Your task to perform on an android device: Open Chrome and go to settings Image 0: 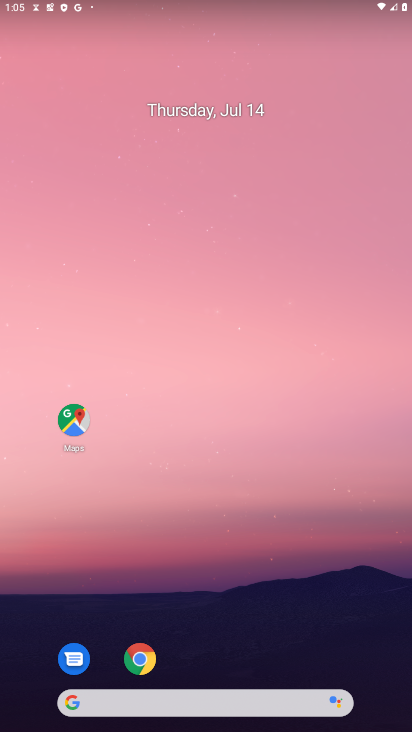
Step 0: click (146, 658)
Your task to perform on an android device: Open Chrome and go to settings Image 1: 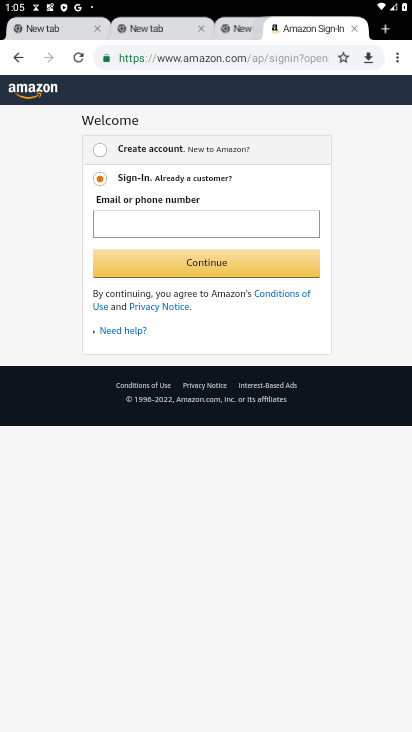
Step 1: click (394, 65)
Your task to perform on an android device: Open Chrome and go to settings Image 2: 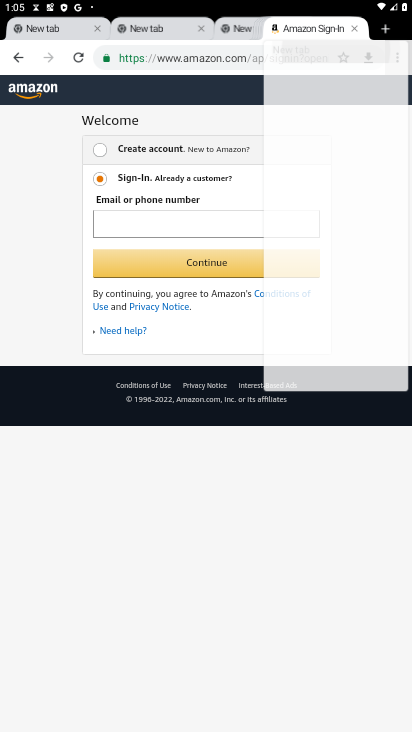
Step 2: click (398, 60)
Your task to perform on an android device: Open Chrome and go to settings Image 3: 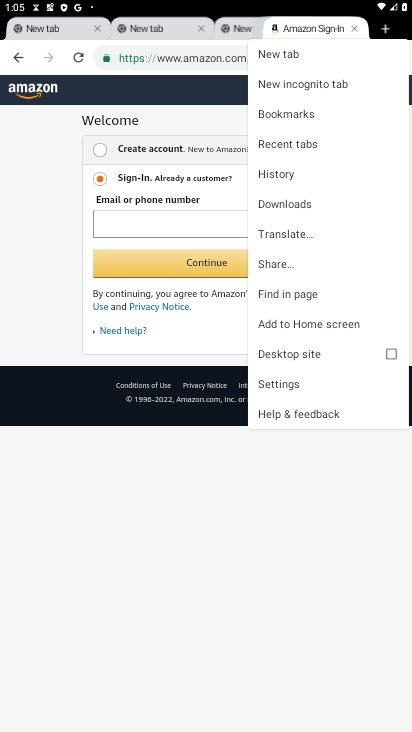
Step 3: click (293, 389)
Your task to perform on an android device: Open Chrome and go to settings Image 4: 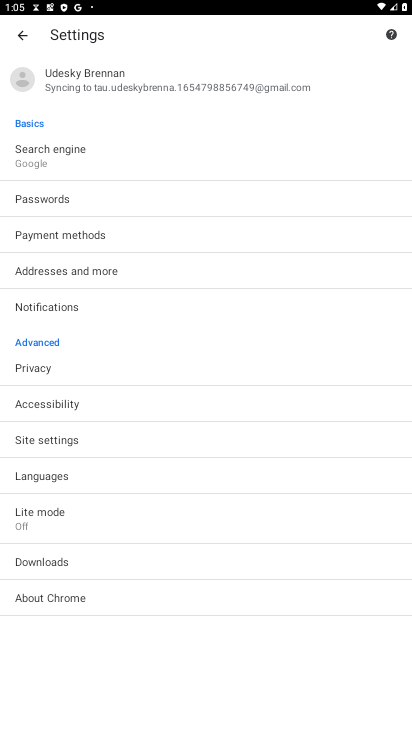
Step 4: task complete